Your task to perform on an android device: Open Chrome and go to settings Image 0: 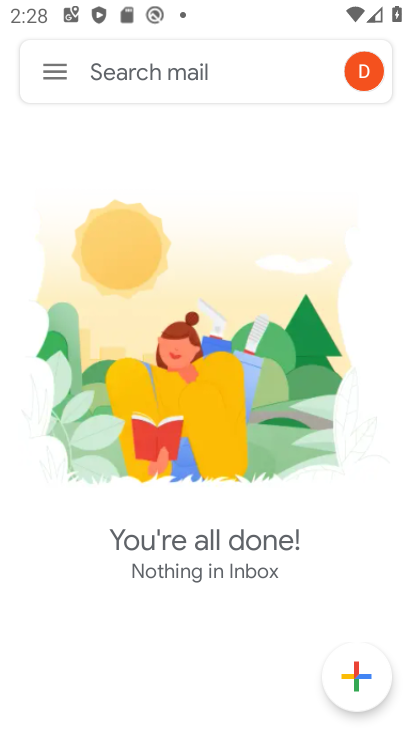
Step 0: press home button
Your task to perform on an android device: Open Chrome and go to settings Image 1: 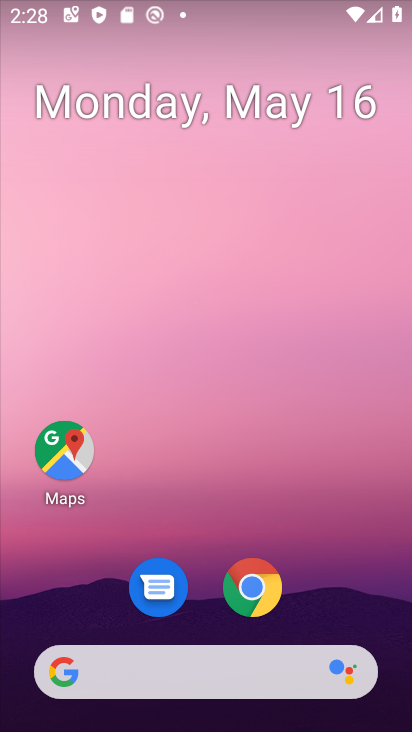
Step 1: drag from (353, 639) to (148, 73)
Your task to perform on an android device: Open Chrome and go to settings Image 2: 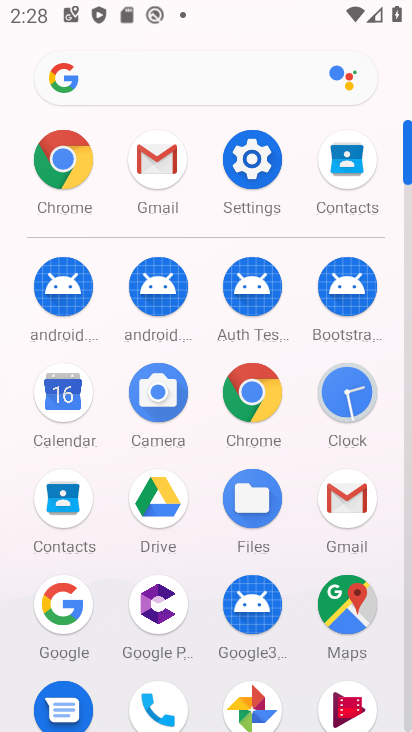
Step 2: click (251, 405)
Your task to perform on an android device: Open Chrome and go to settings Image 3: 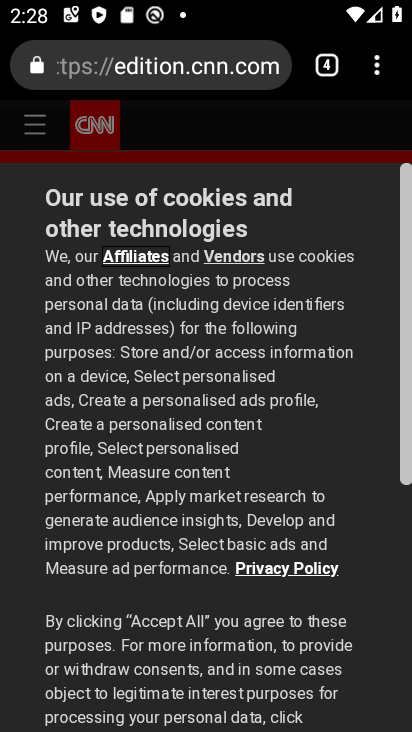
Step 3: click (377, 65)
Your task to perform on an android device: Open Chrome and go to settings Image 4: 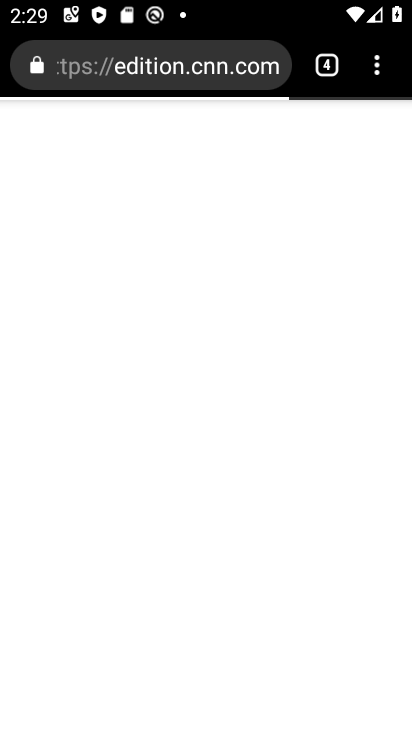
Step 4: drag from (375, 71) to (139, 646)
Your task to perform on an android device: Open Chrome and go to settings Image 5: 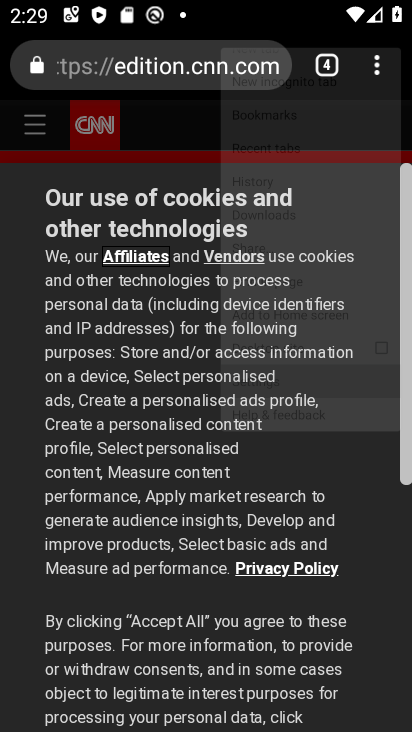
Step 5: click (143, 639)
Your task to perform on an android device: Open Chrome and go to settings Image 6: 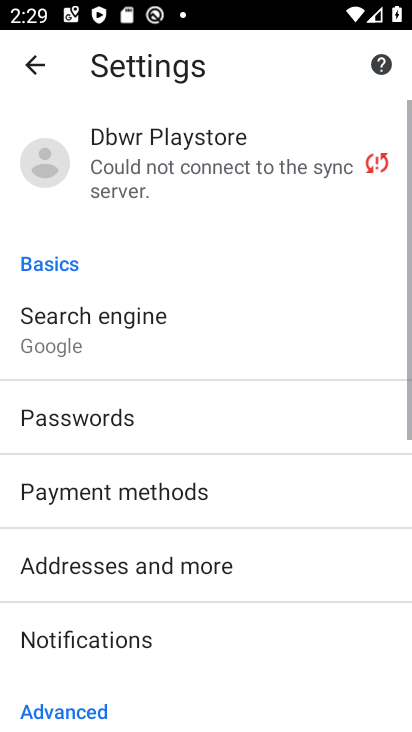
Step 6: task complete